Your task to perform on an android device: What's on my calendar today? Image 0: 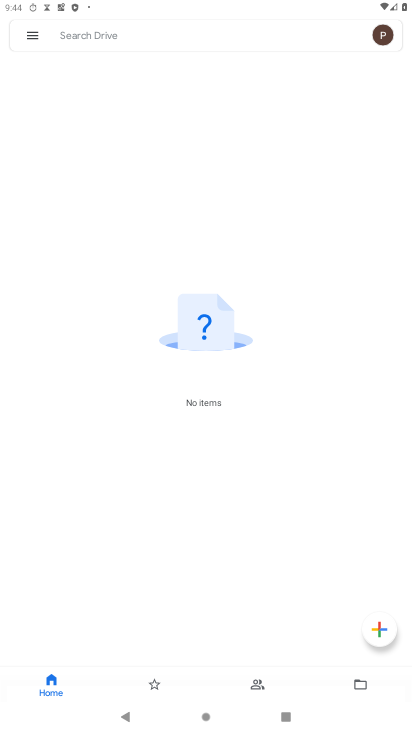
Step 0: press home button
Your task to perform on an android device: What's on my calendar today? Image 1: 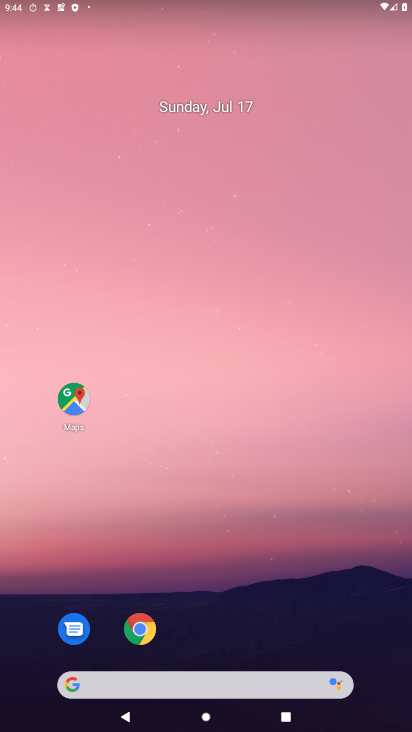
Step 1: drag from (232, 626) to (225, 172)
Your task to perform on an android device: What's on my calendar today? Image 2: 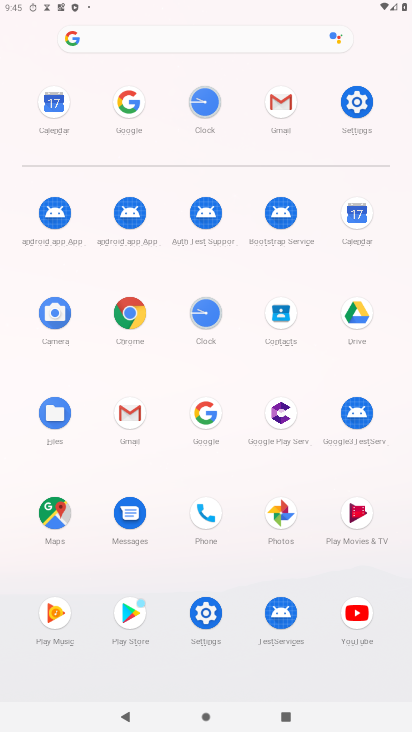
Step 2: click (357, 214)
Your task to perform on an android device: What's on my calendar today? Image 3: 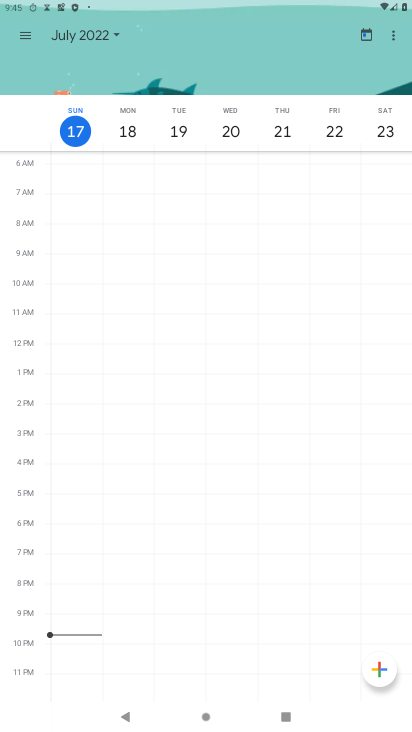
Step 3: click (73, 132)
Your task to perform on an android device: What's on my calendar today? Image 4: 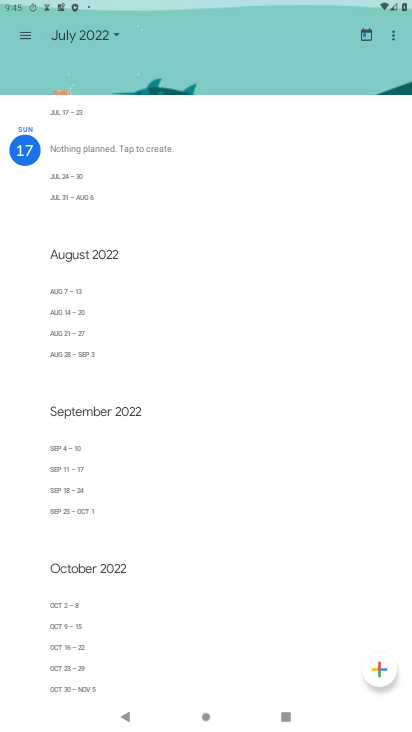
Step 4: task complete